Your task to perform on an android device: turn on the 12-hour format for clock Image 0: 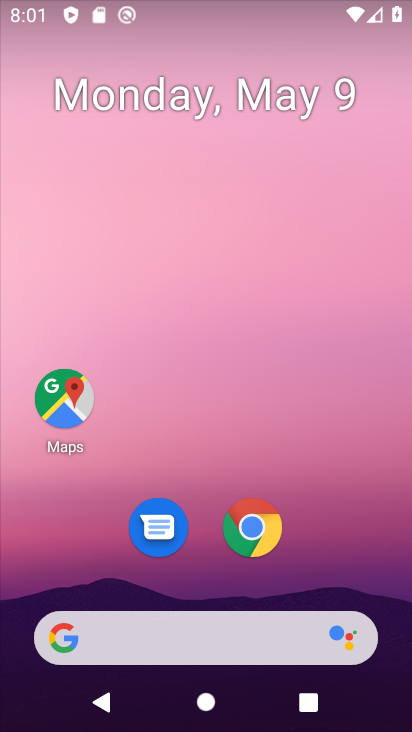
Step 0: drag from (202, 582) to (248, 67)
Your task to perform on an android device: turn on the 12-hour format for clock Image 1: 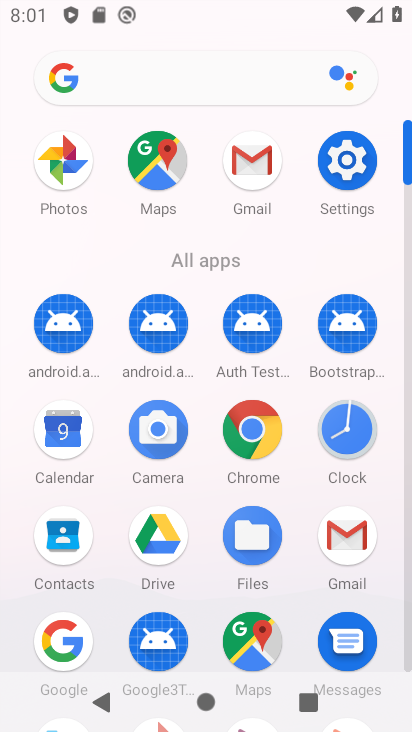
Step 1: click (342, 426)
Your task to perform on an android device: turn on the 12-hour format for clock Image 2: 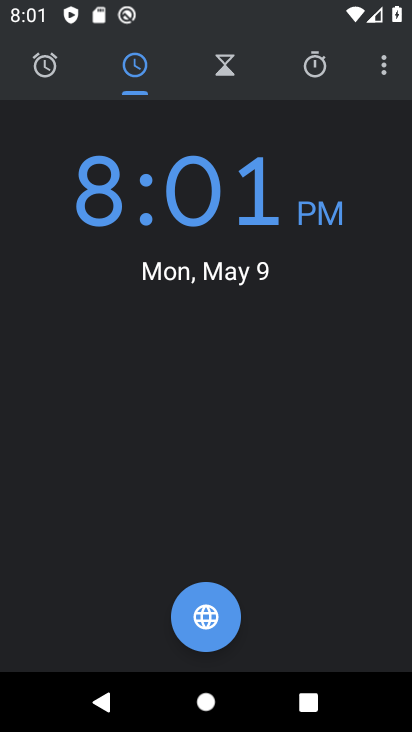
Step 2: click (383, 65)
Your task to perform on an android device: turn on the 12-hour format for clock Image 3: 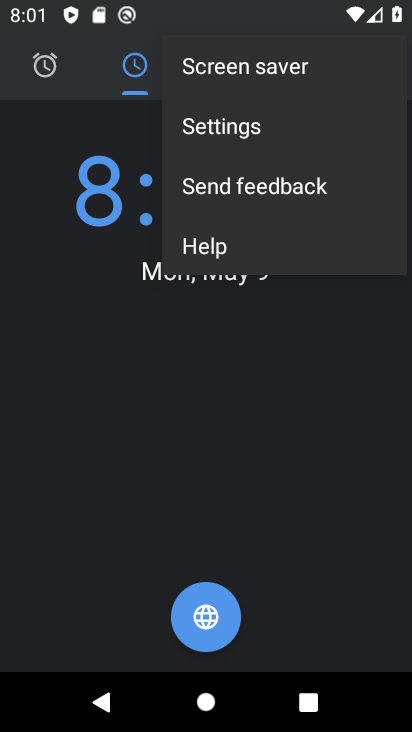
Step 3: click (282, 128)
Your task to perform on an android device: turn on the 12-hour format for clock Image 4: 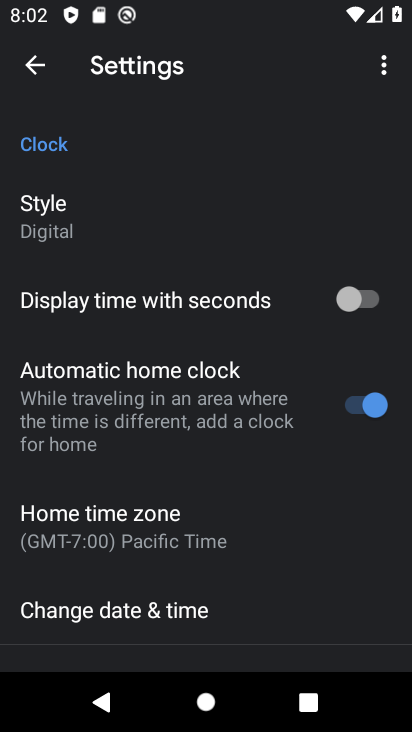
Step 4: click (225, 609)
Your task to perform on an android device: turn on the 12-hour format for clock Image 5: 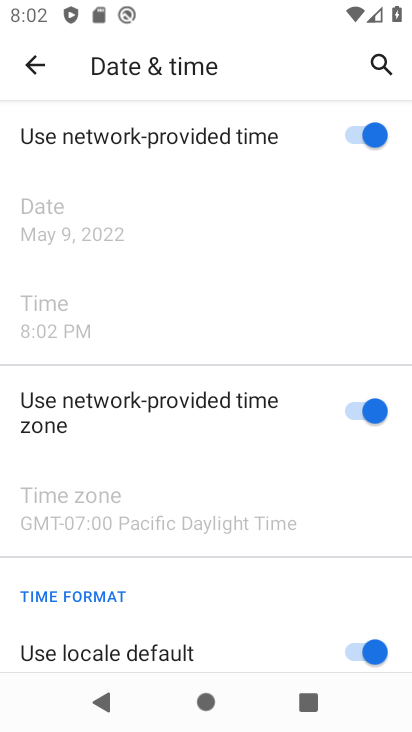
Step 5: task complete